Your task to perform on an android device: Open location settings Image 0: 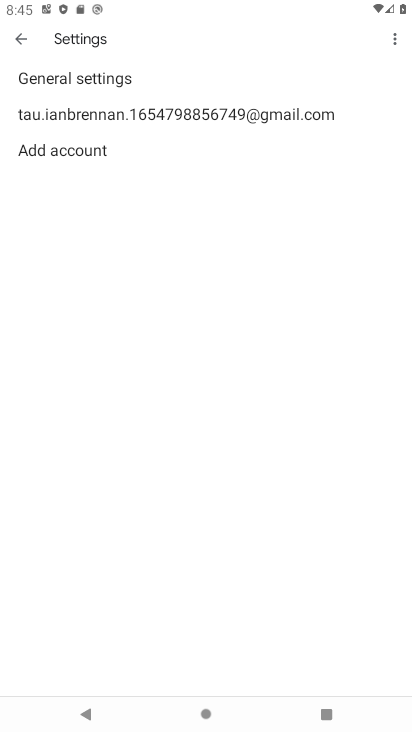
Step 0: press home button
Your task to perform on an android device: Open location settings Image 1: 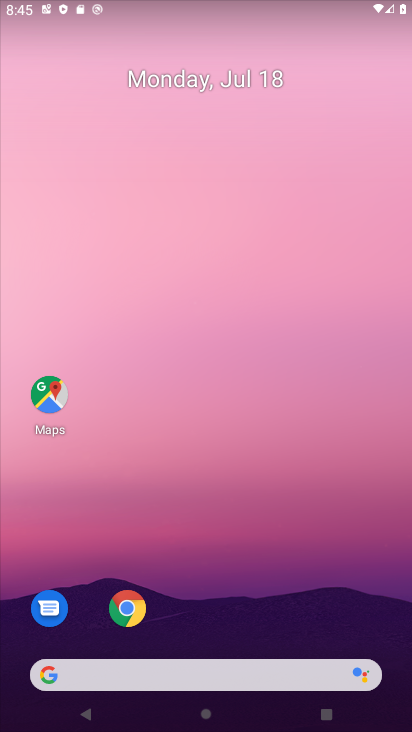
Step 1: drag from (227, 723) to (203, 158)
Your task to perform on an android device: Open location settings Image 2: 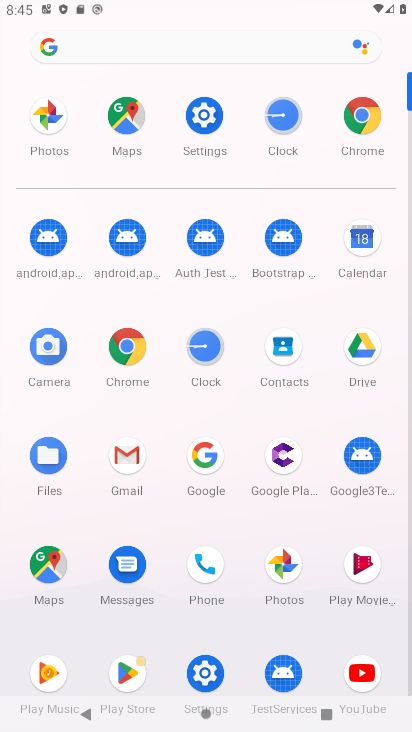
Step 2: click (206, 115)
Your task to perform on an android device: Open location settings Image 3: 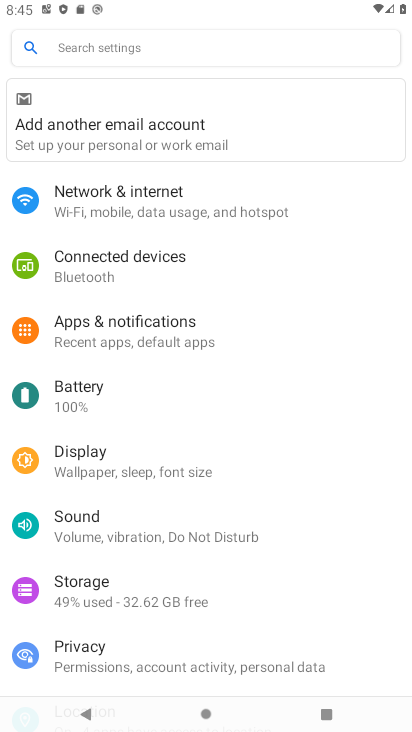
Step 3: drag from (117, 661) to (119, 343)
Your task to perform on an android device: Open location settings Image 4: 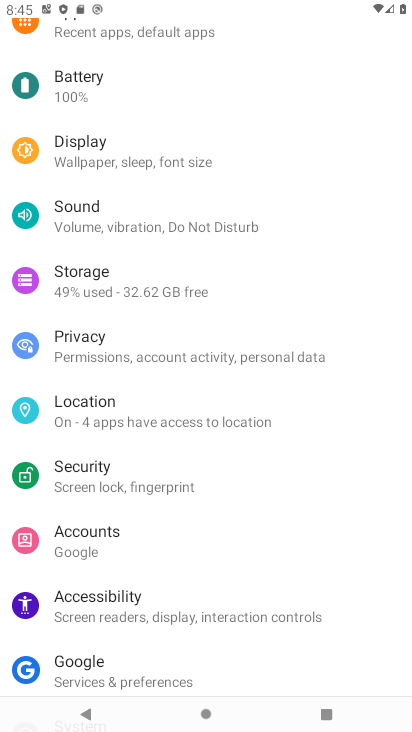
Step 4: click (96, 408)
Your task to perform on an android device: Open location settings Image 5: 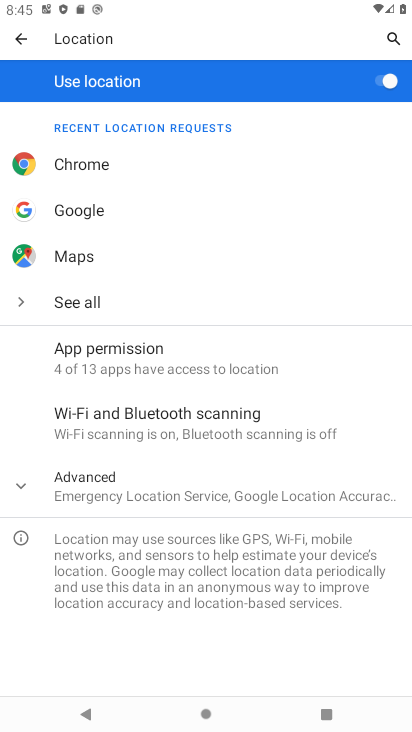
Step 5: task complete